Your task to perform on an android device: turn pop-ups off in chrome Image 0: 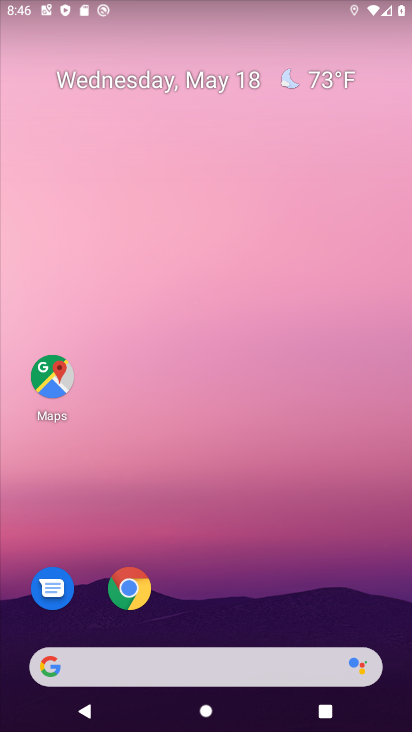
Step 0: drag from (327, 517) to (325, 134)
Your task to perform on an android device: turn pop-ups off in chrome Image 1: 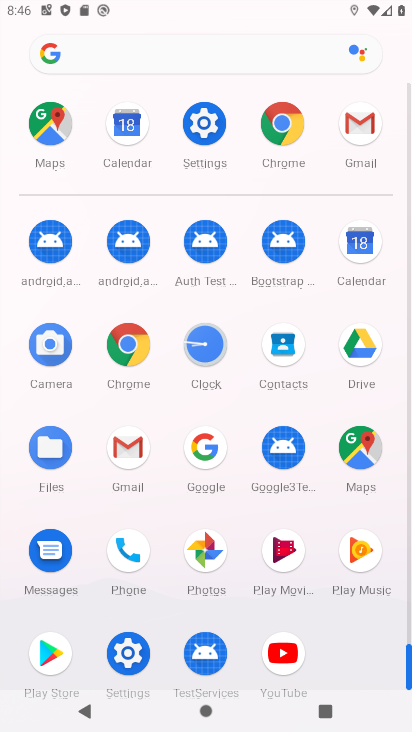
Step 1: click (96, 329)
Your task to perform on an android device: turn pop-ups off in chrome Image 2: 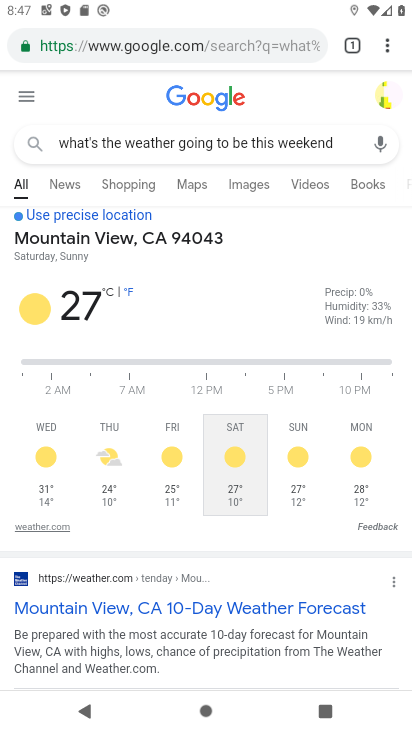
Step 2: drag from (392, 43) to (265, 494)
Your task to perform on an android device: turn pop-ups off in chrome Image 3: 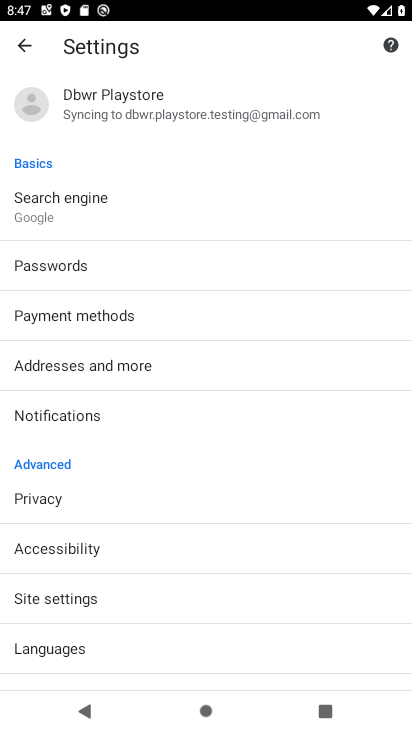
Step 3: click (127, 601)
Your task to perform on an android device: turn pop-ups off in chrome Image 4: 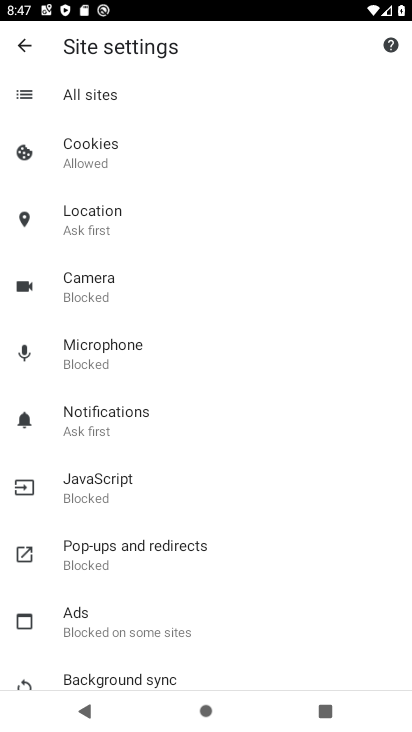
Step 4: click (207, 537)
Your task to perform on an android device: turn pop-ups off in chrome Image 5: 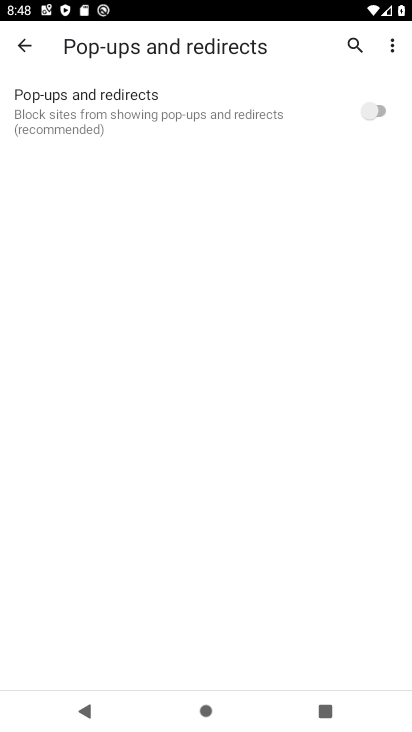
Step 5: task complete